Your task to perform on an android device: What's on my calendar today? Image 0: 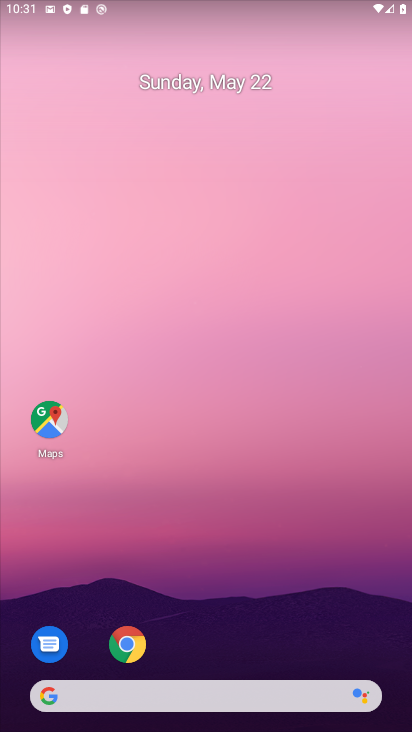
Step 0: drag from (215, 648) to (238, 74)
Your task to perform on an android device: What's on my calendar today? Image 1: 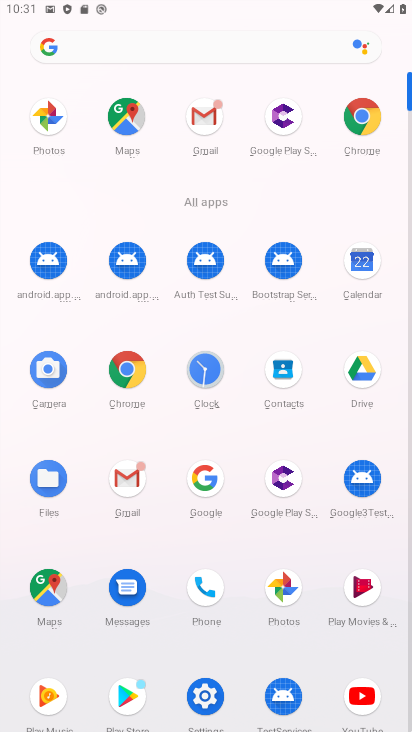
Step 1: click (359, 259)
Your task to perform on an android device: What's on my calendar today? Image 2: 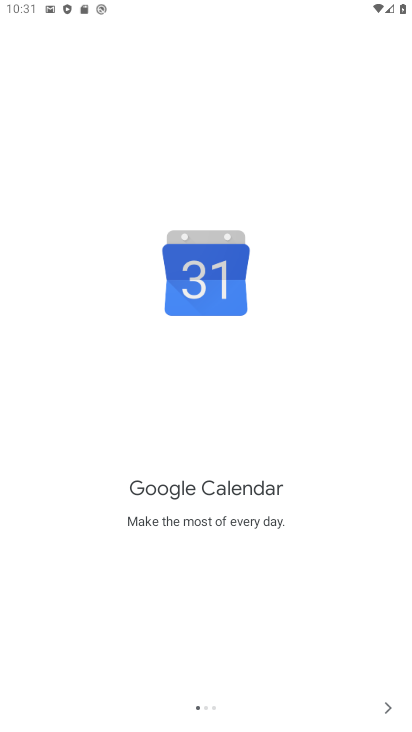
Step 2: click (384, 698)
Your task to perform on an android device: What's on my calendar today? Image 3: 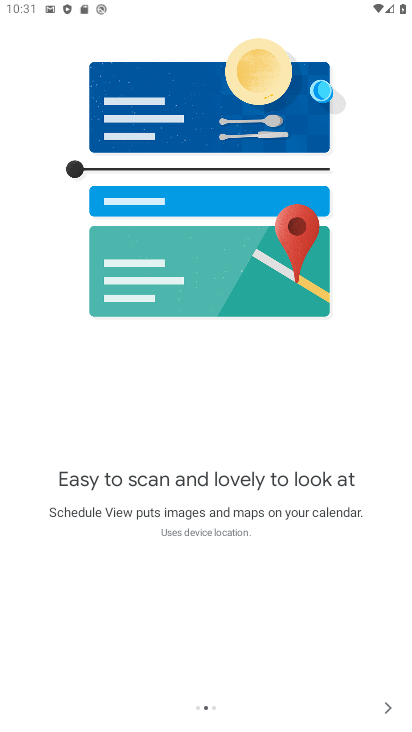
Step 3: click (384, 698)
Your task to perform on an android device: What's on my calendar today? Image 4: 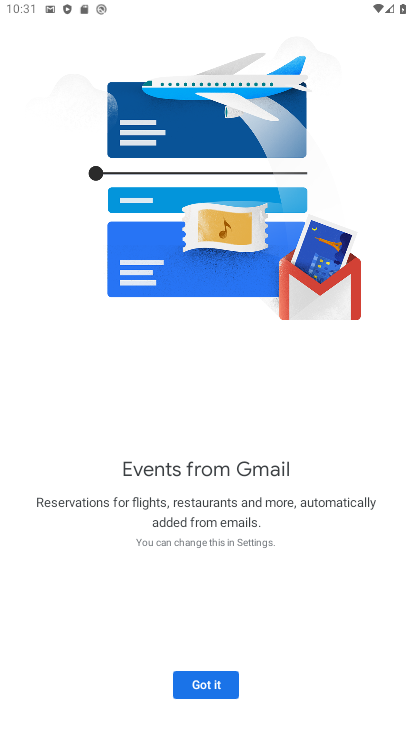
Step 4: click (215, 681)
Your task to perform on an android device: What's on my calendar today? Image 5: 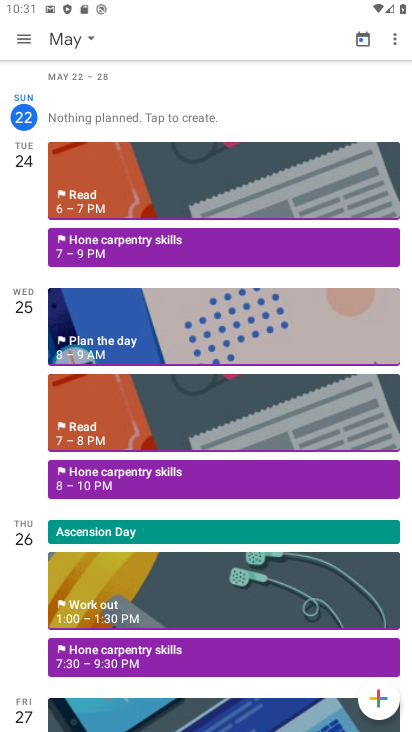
Step 5: click (23, 115)
Your task to perform on an android device: What's on my calendar today? Image 6: 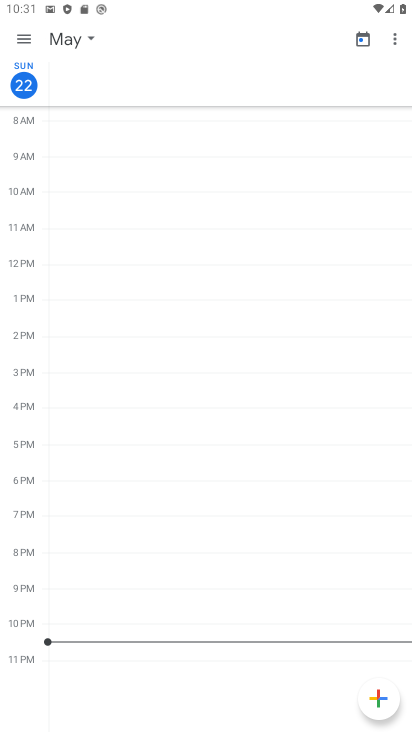
Step 6: task complete